Your task to perform on an android device: Show me the alarms in the clock app Image 0: 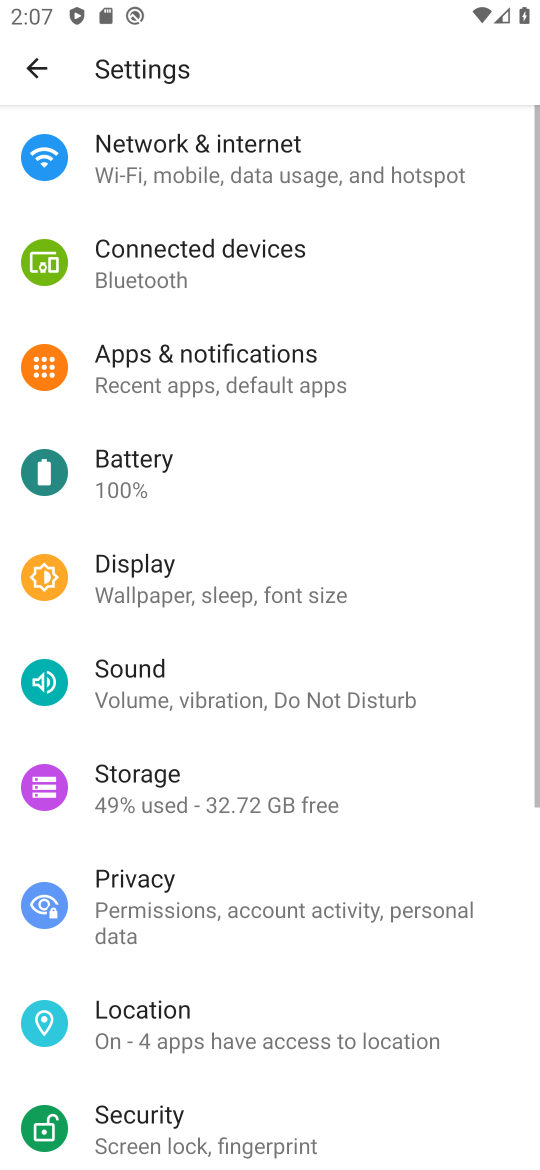
Step 0: press home button
Your task to perform on an android device: Show me the alarms in the clock app Image 1: 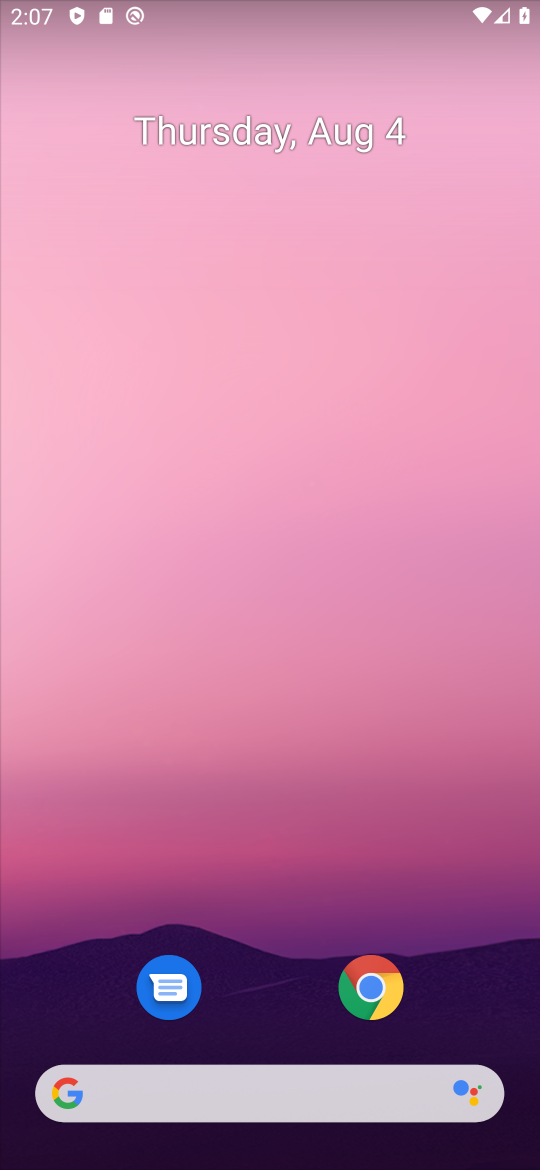
Step 1: drag from (495, 1002) to (153, 14)
Your task to perform on an android device: Show me the alarms in the clock app Image 2: 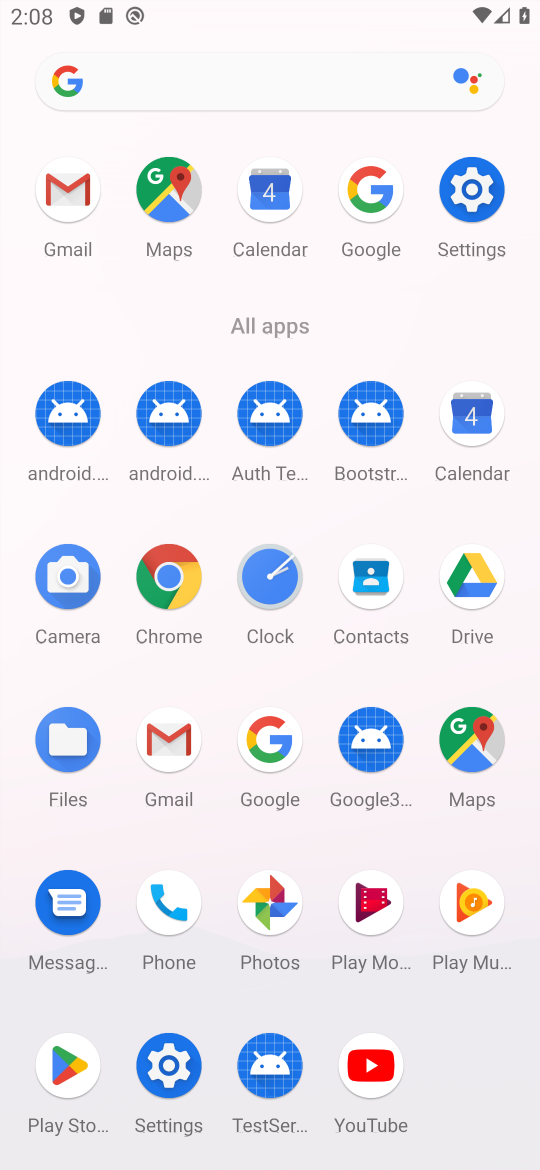
Step 2: click (273, 580)
Your task to perform on an android device: Show me the alarms in the clock app Image 3: 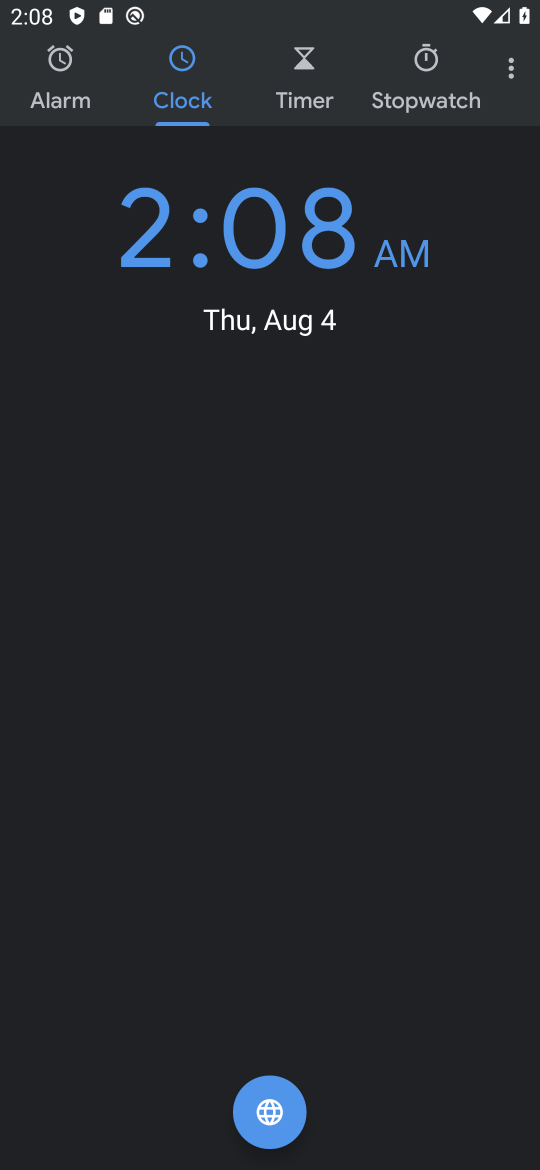
Step 3: click (65, 76)
Your task to perform on an android device: Show me the alarms in the clock app Image 4: 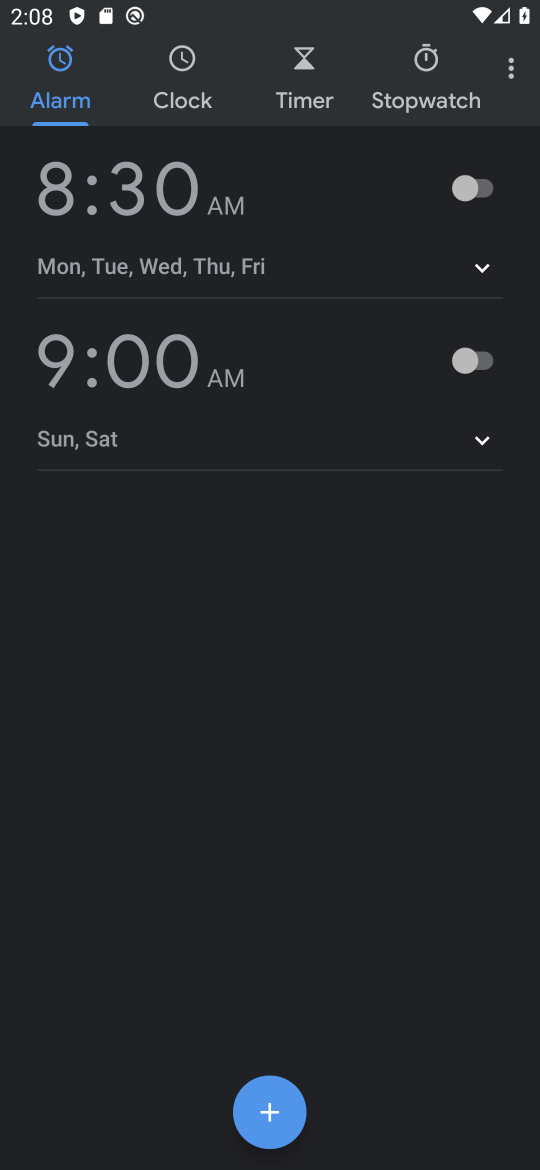
Step 4: task complete